Your task to perform on an android device: What is the recent news? Image 0: 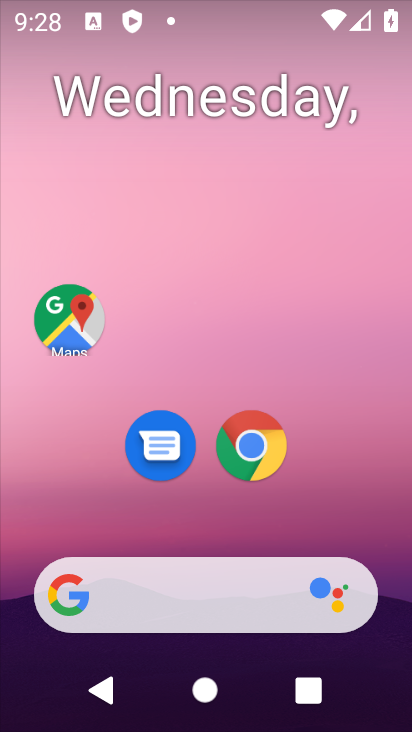
Step 0: click (282, 454)
Your task to perform on an android device: What is the recent news? Image 1: 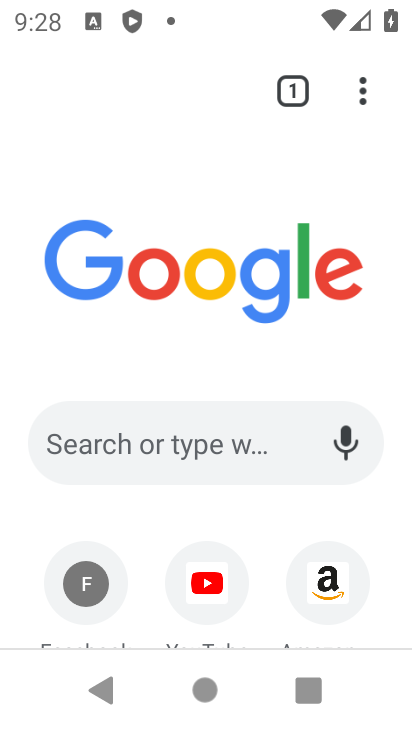
Step 1: task complete